Your task to perform on an android device: When is my next appointment? Image 0: 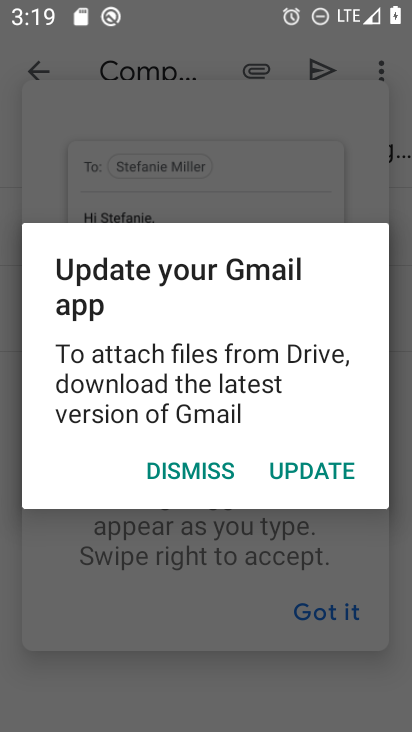
Step 0: press home button
Your task to perform on an android device: When is my next appointment? Image 1: 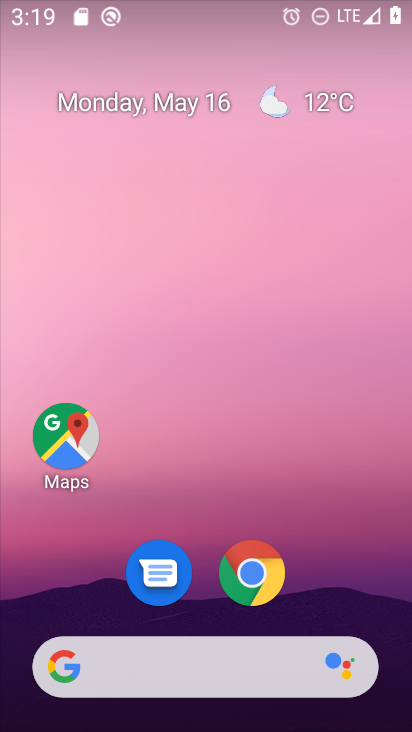
Step 1: drag from (250, 653) to (164, 143)
Your task to perform on an android device: When is my next appointment? Image 2: 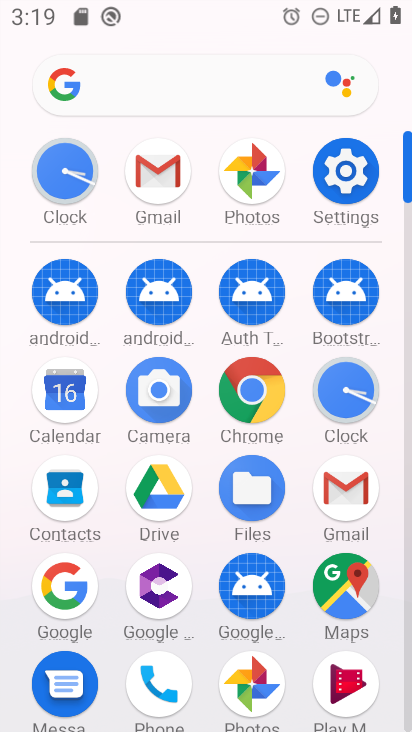
Step 2: click (50, 391)
Your task to perform on an android device: When is my next appointment? Image 3: 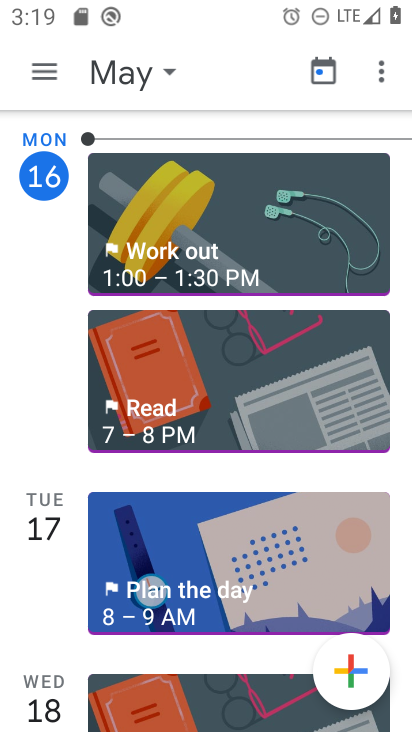
Step 3: click (56, 63)
Your task to perform on an android device: When is my next appointment? Image 4: 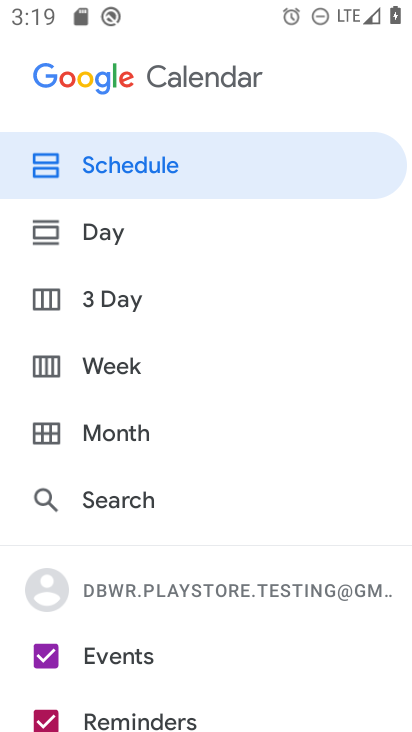
Step 4: click (104, 173)
Your task to perform on an android device: When is my next appointment? Image 5: 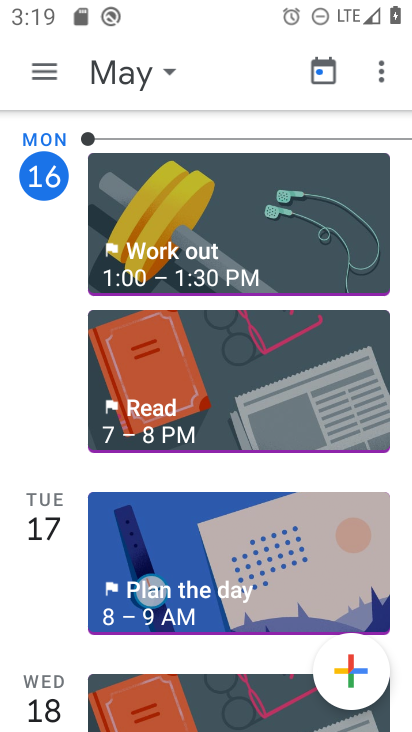
Step 5: task complete